Your task to perform on an android device: all mails in gmail Image 0: 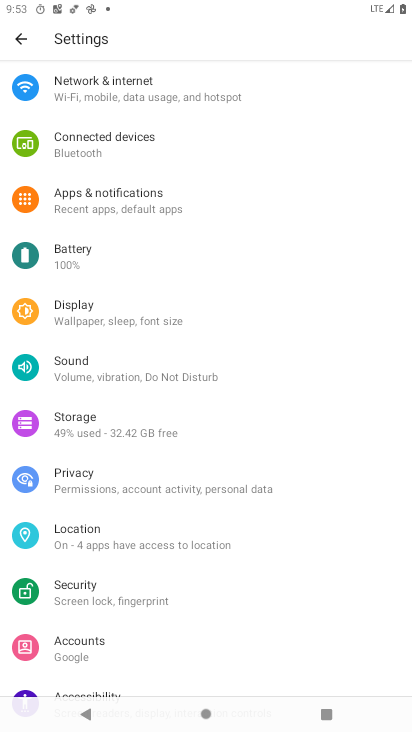
Step 0: press home button
Your task to perform on an android device: all mails in gmail Image 1: 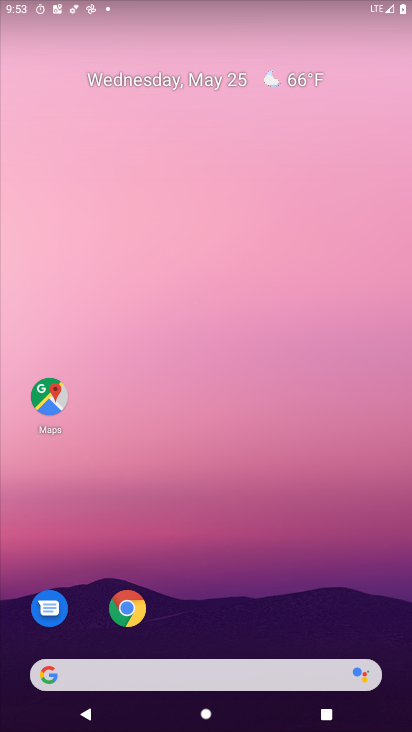
Step 1: drag from (235, 727) to (232, 259)
Your task to perform on an android device: all mails in gmail Image 2: 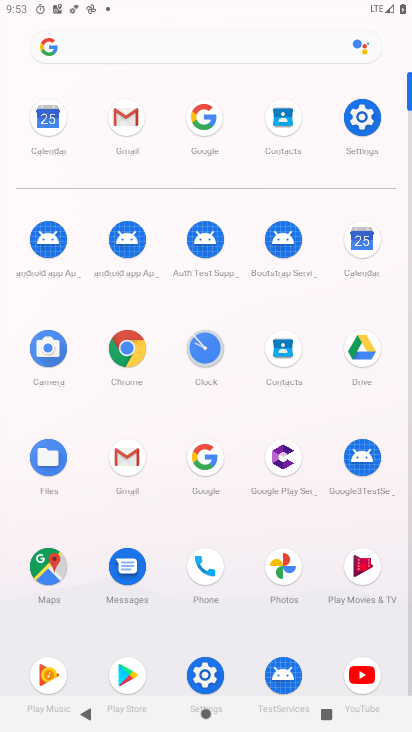
Step 2: click (124, 458)
Your task to perform on an android device: all mails in gmail Image 3: 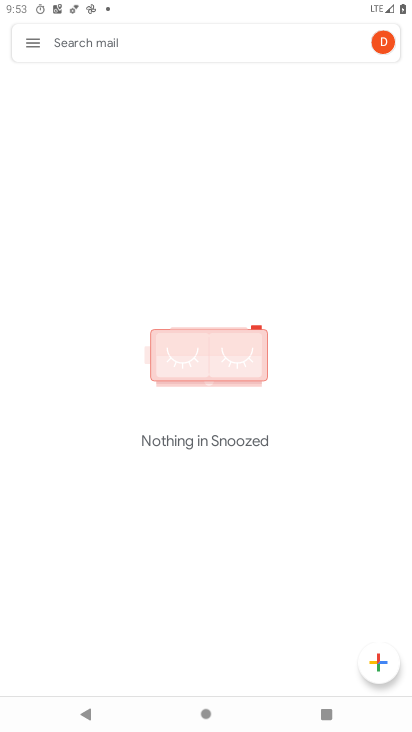
Step 3: click (28, 43)
Your task to perform on an android device: all mails in gmail Image 4: 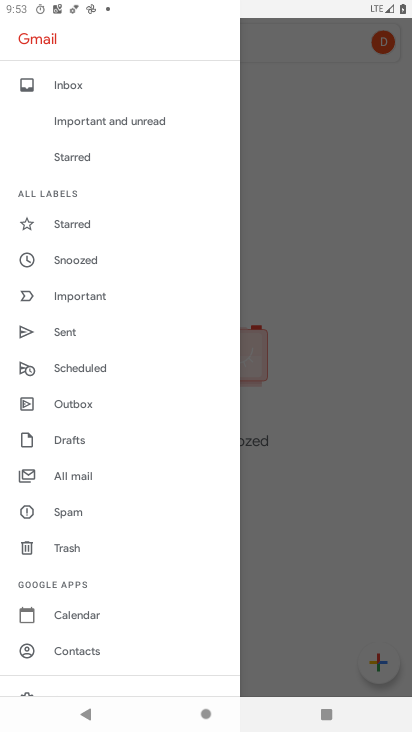
Step 4: click (73, 477)
Your task to perform on an android device: all mails in gmail Image 5: 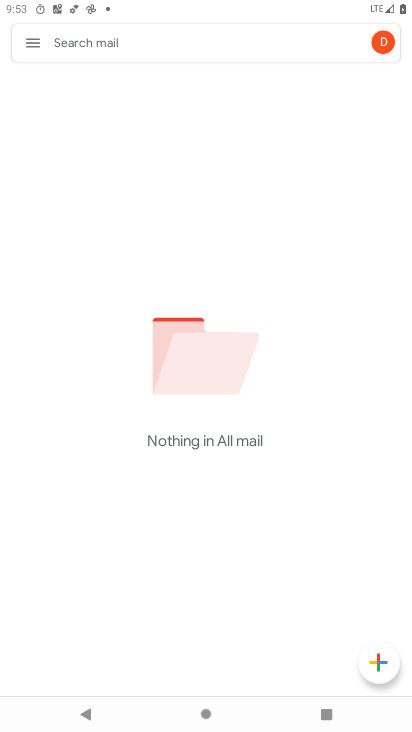
Step 5: task complete